Your task to perform on an android device: move a message to another label in the gmail app Image 0: 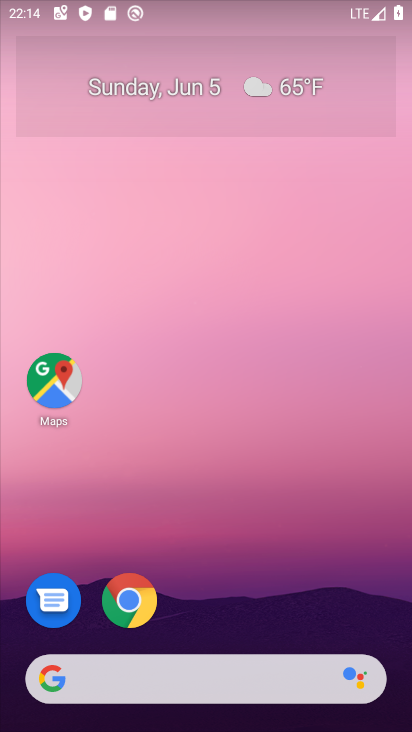
Step 0: drag from (289, 614) to (291, 174)
Your task to perform on an android device: move a message to another label in the gmail app Image 1: 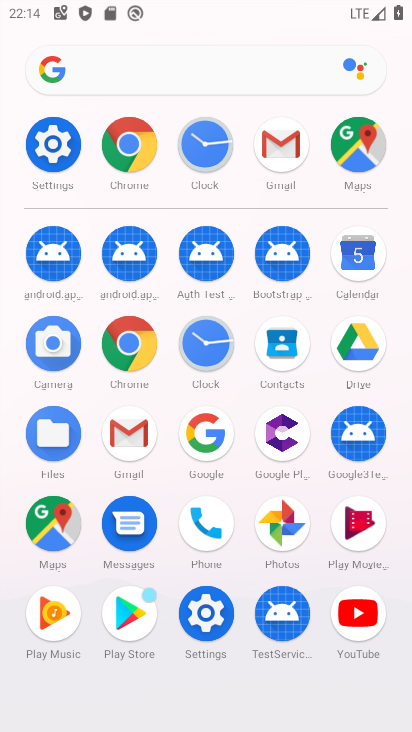
Step 1: click (284, 157)
Your task to perform on an android device: move a message to another label in the gmail app Image 2: 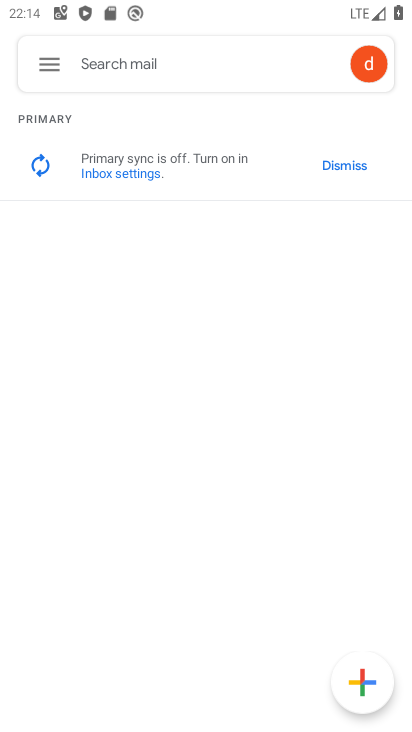
Step 2: click (36, 62)
Your task to perform on an android device: move a message to another label in the gmail app Image 3: 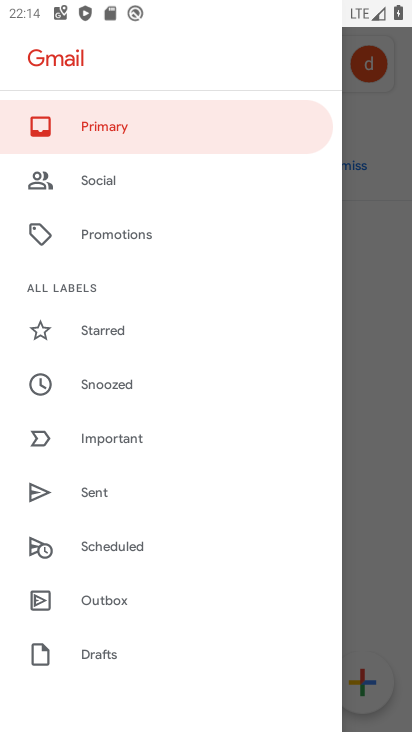
Step 3: drag from (84, 562) to (185, 227)
Your task to perform on an android device: move a message to another label in the gmail app Image 4: 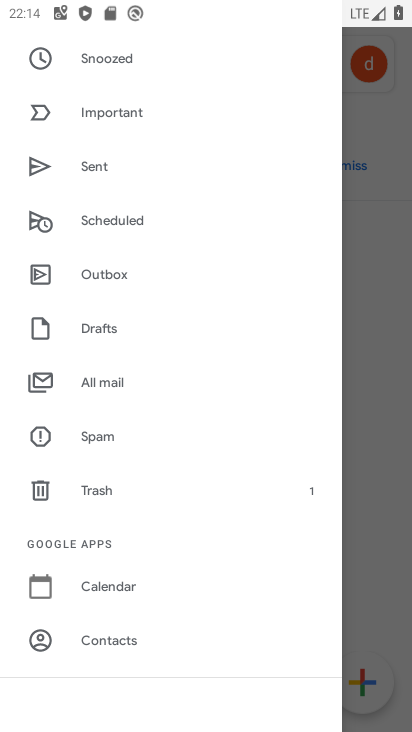
Step 4: click (92, 367)
Your task to perform on an android device: move a message to another label in the gmail app Image 5: 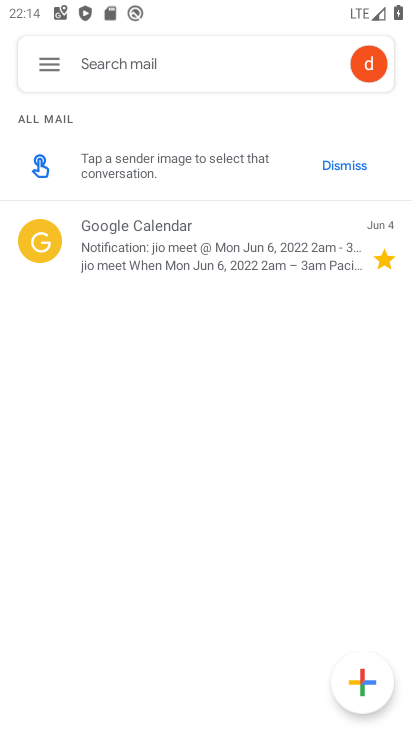
Step 5: task complete